Your task to perform on an android device: See recent photos Image 0: 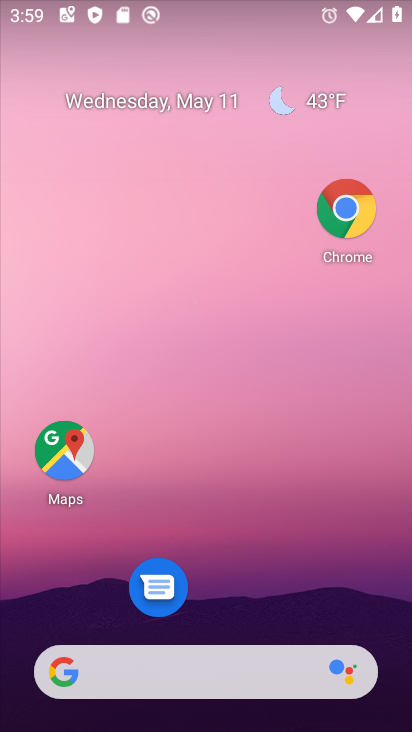
Step 0: drag from (238, 574) to (175, 1)
Your task to perform on an android device: See recent photos Image 1: 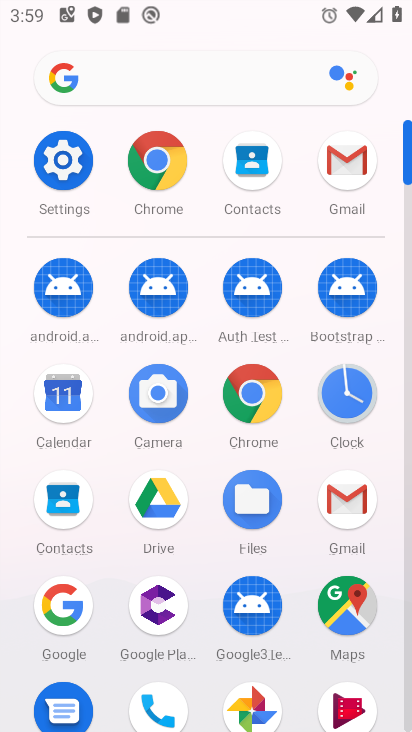
Step 1: click (254, 684)
Your task to perform on an android device: See recent photos Image 2: 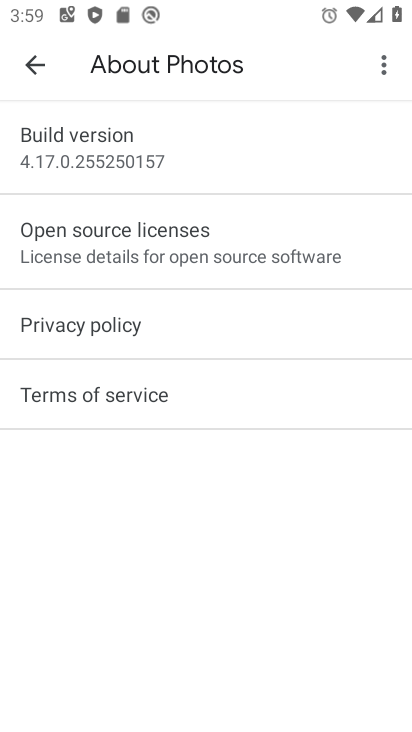
Step 2: click (25, 64)
Your task to perform on an android device: See recent photos Image 3: 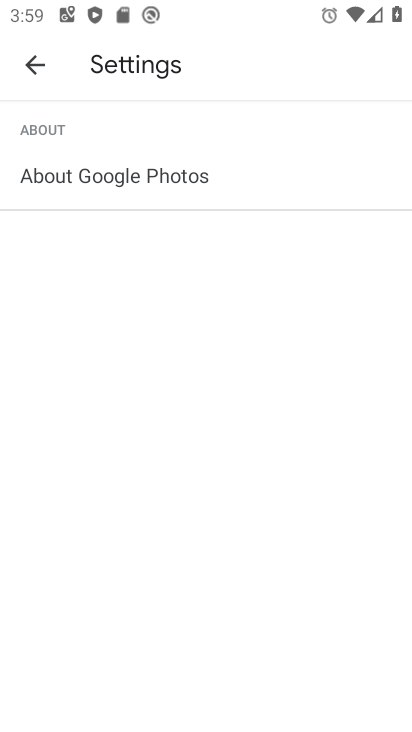
Step 3: click (25, 64)
Your task to perform on an android device: See recent photos Image 4: 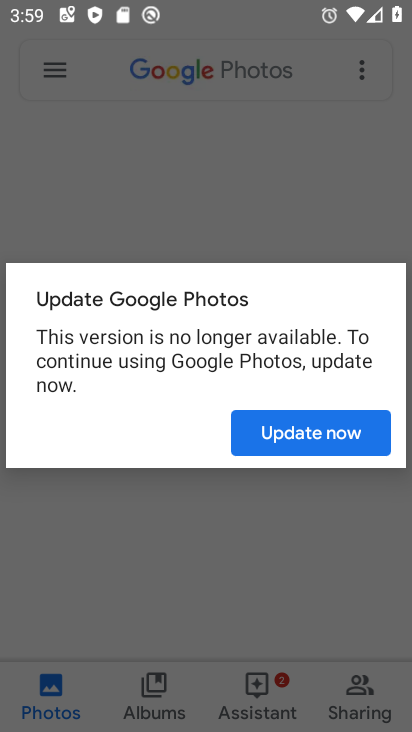
Step 4: click (289, 439)
Your task to perform on an android device: See recent photos Image 5: 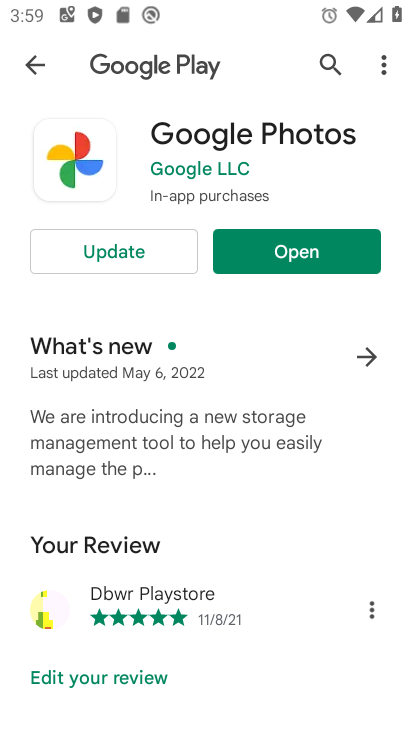
Step 5: click (147, 247)
Your task to perform on an android device: See recent photos Image 6: 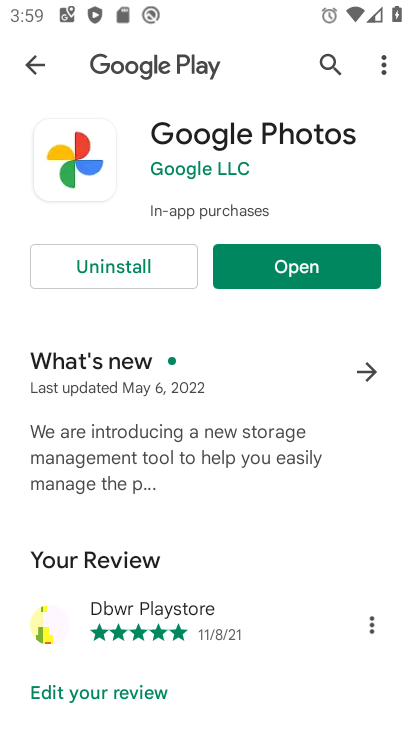
Step 6: click (320, 260)
Your task to perform on an android device: See recent photos Image 7: 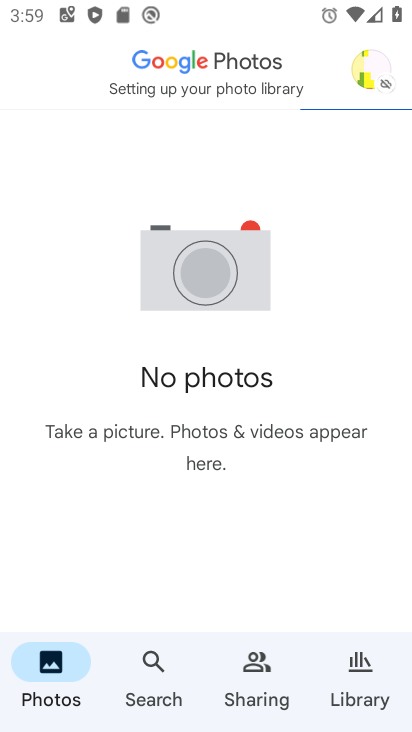
Step 7: click (152, 664)
Your task to perform on an android device: See recent photos Image 8: 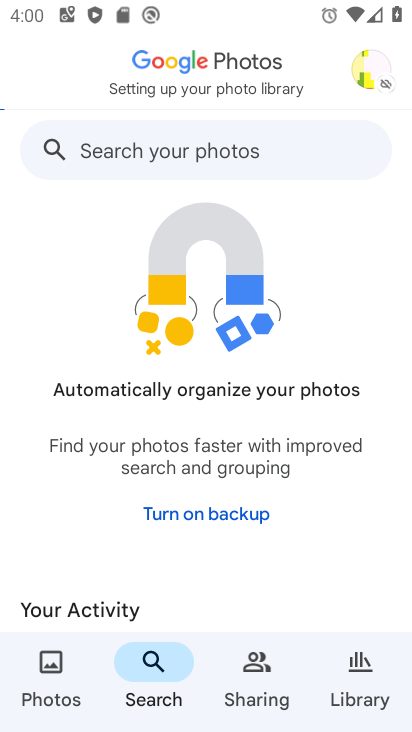
Step 8: click (208, 518)
Your task to perform on an android device: See recent photos Image 9: 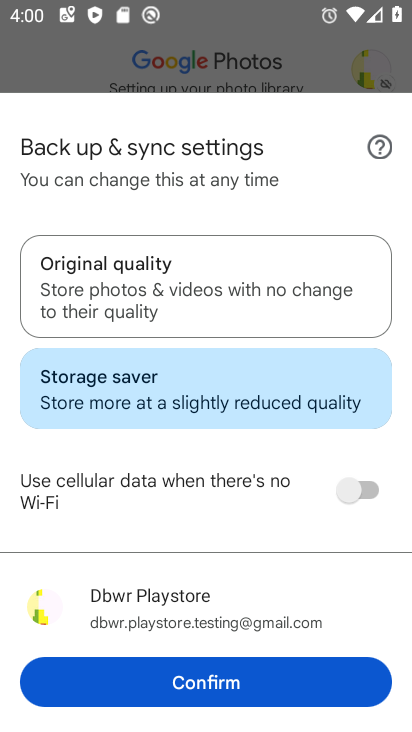
Step 9: click (233, 688)
Your task to perform on an android device: See recent photos Image 10: 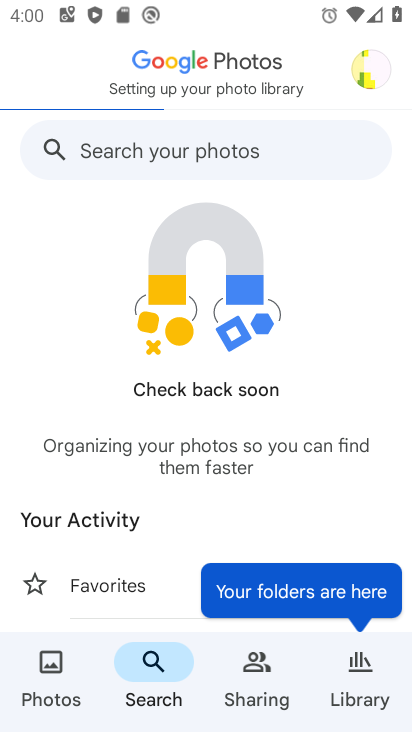
Step 10: drag from (158, 561) to (140, 272)
Your task to perform on an android device: See recent photos Image 11: 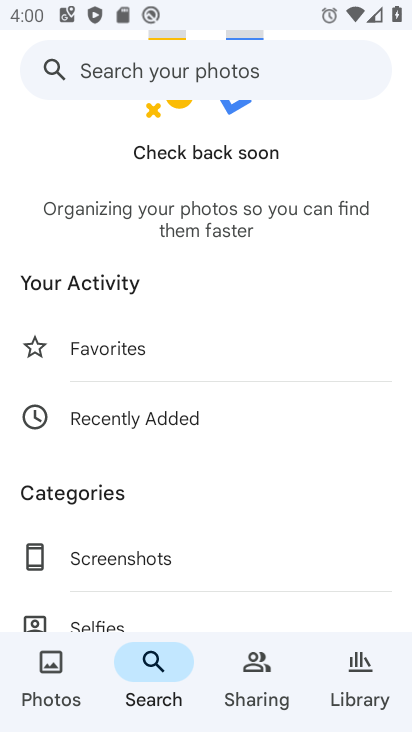
Step 11: click (155, 414)
Your task to perform on an android device: See recent photos Image 12: 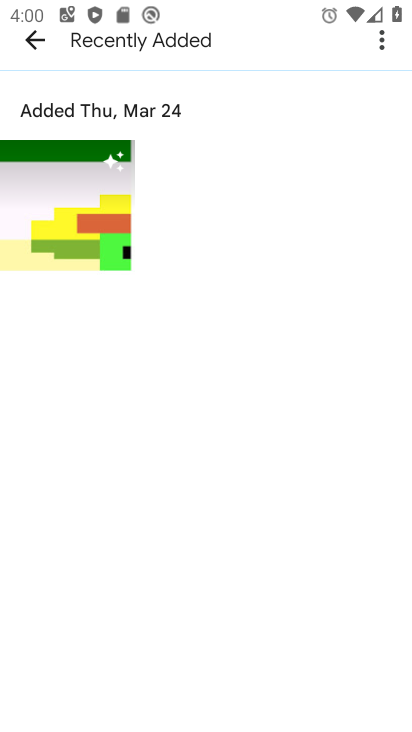
Step 12: task complete